Your task to perform on an android device: What's the weather today? Image 0: 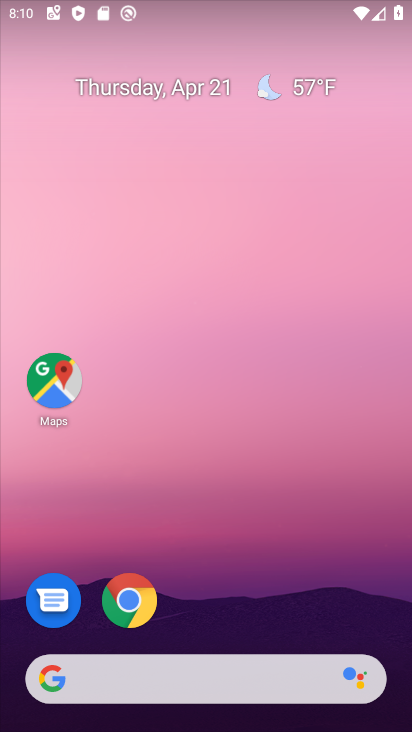
Step 0: click (280, 174)
Your task to perform on an android device: What's the weather today? Image 1: 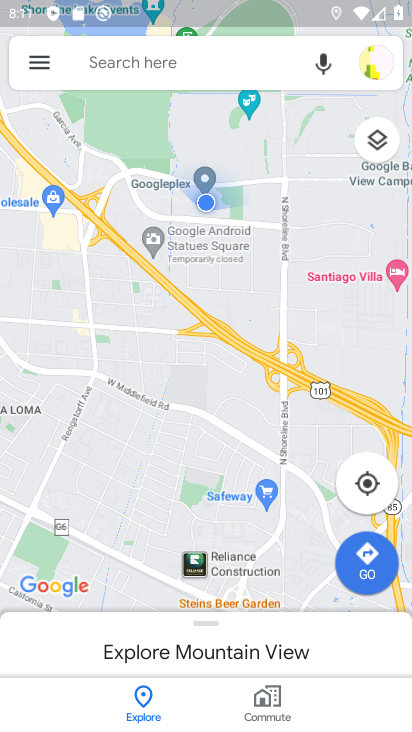
Step 1: press back button
Your task to perform on an android device: What's the weather today? Image 2: 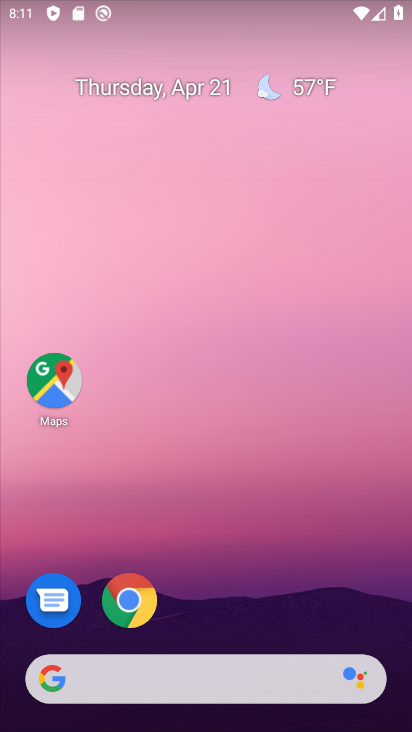
Step 2: drag from (230, 589) to (216, 212)
Your task to perform on an android device: What's the weather today? Image 3: 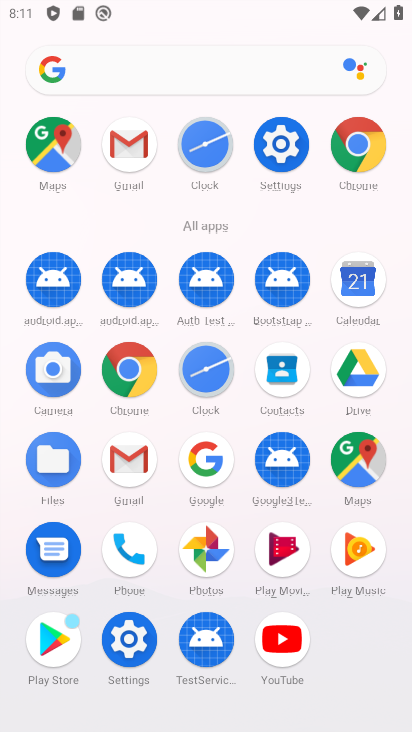
Step 3: click (203, 478)
Your task to perform on an android device: What's the weather today? Image 4: 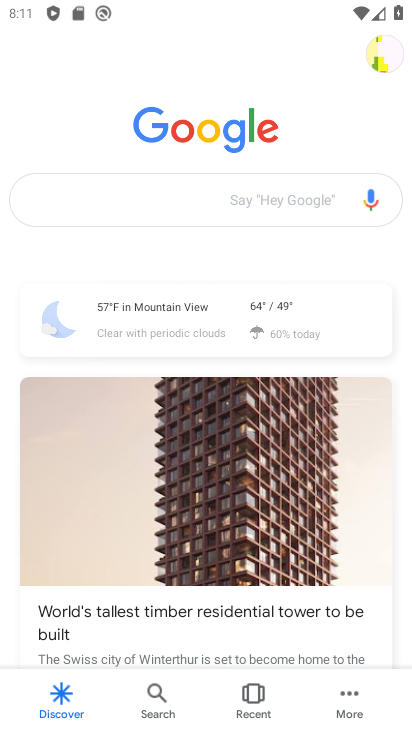
Step 4: click (171, 306)
Your task to perform on an android device: What's the weather today? Image 5: 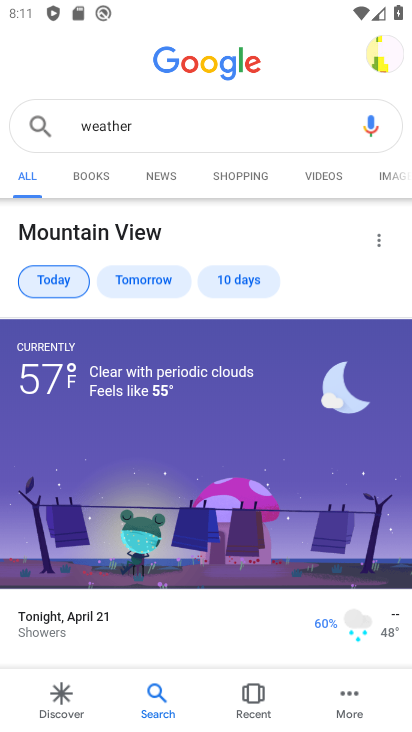
Step 5: task complete